Your task to perform on an android device: Go to Reddit.com Image 0: 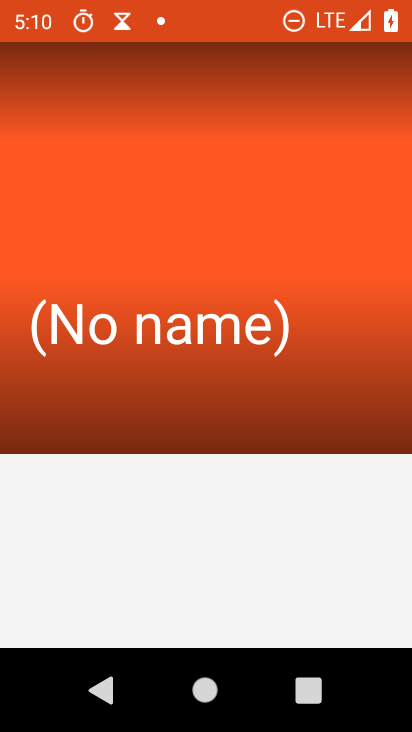
Step 0: drag from (278, 523) to (259, 448)
Your task to perform on an android device: Go to Reddit.com Image 1: 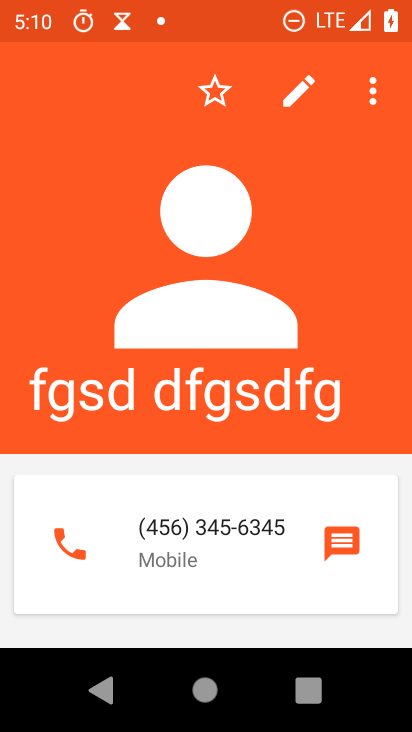
Step 1: press home button
Your task to perform on an android device: Go to Reddit.com Image 2: 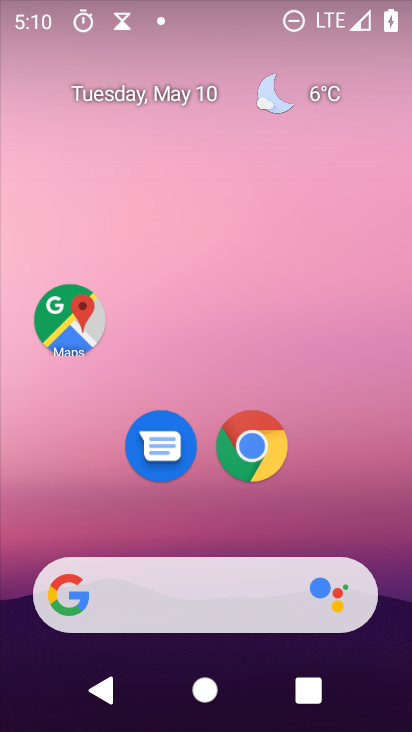
Step 2: click (259, 435)
Your task to perform on an android device: Go to Reddit.com Image 3: 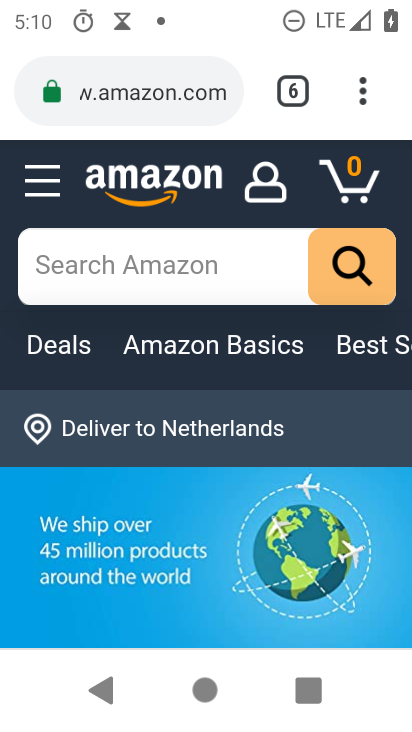
Step 3: click (290, 80)
Your task to perform on an android device: Go to Reddit.com Image 4: 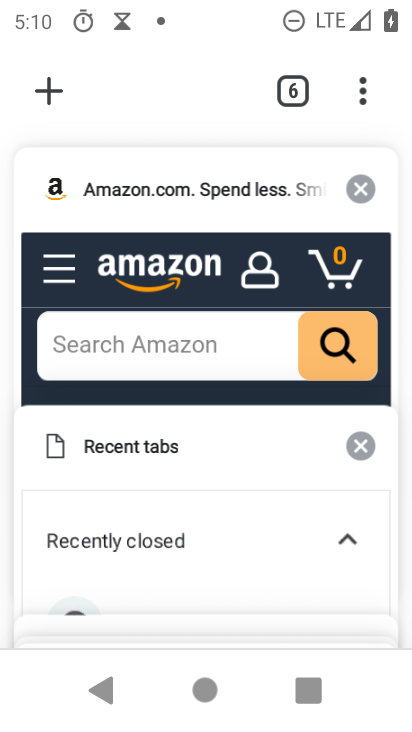
Step 4: drag from (160, 195) to (148, 535)
Your task to perform on an android device: Go to Reddit.com Image 5: 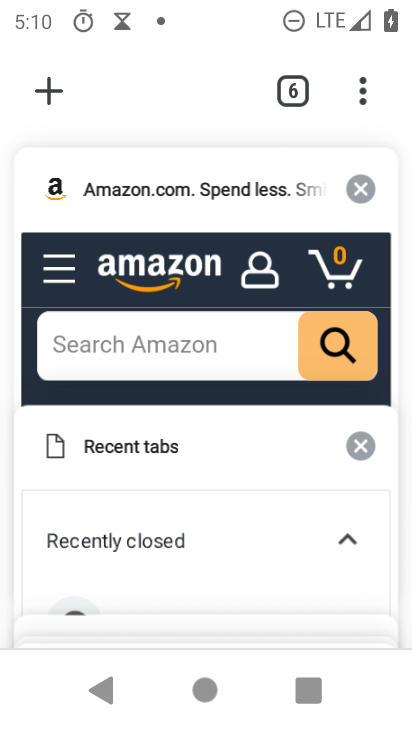
Step 5: drag from (134, 518) to (148, 177)
Your task to perform on an android device: Go to Reddit.com Image 6: 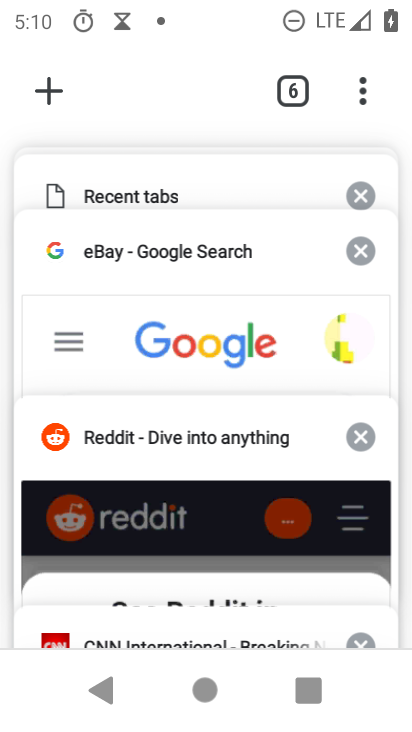
Step 6: click (139, 439)
Your task to perform on an android device: Go to Reddit.com Image 7: 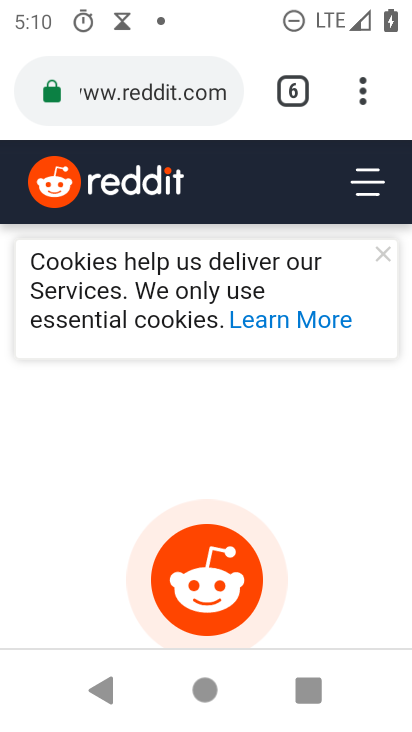
Step 7: task complete